Your task to perform on an android device: Clear all items from cart on target.com. Search for "asus rog" on target.com, select the first entry, add it to the cart, then select checkout. Image 0: 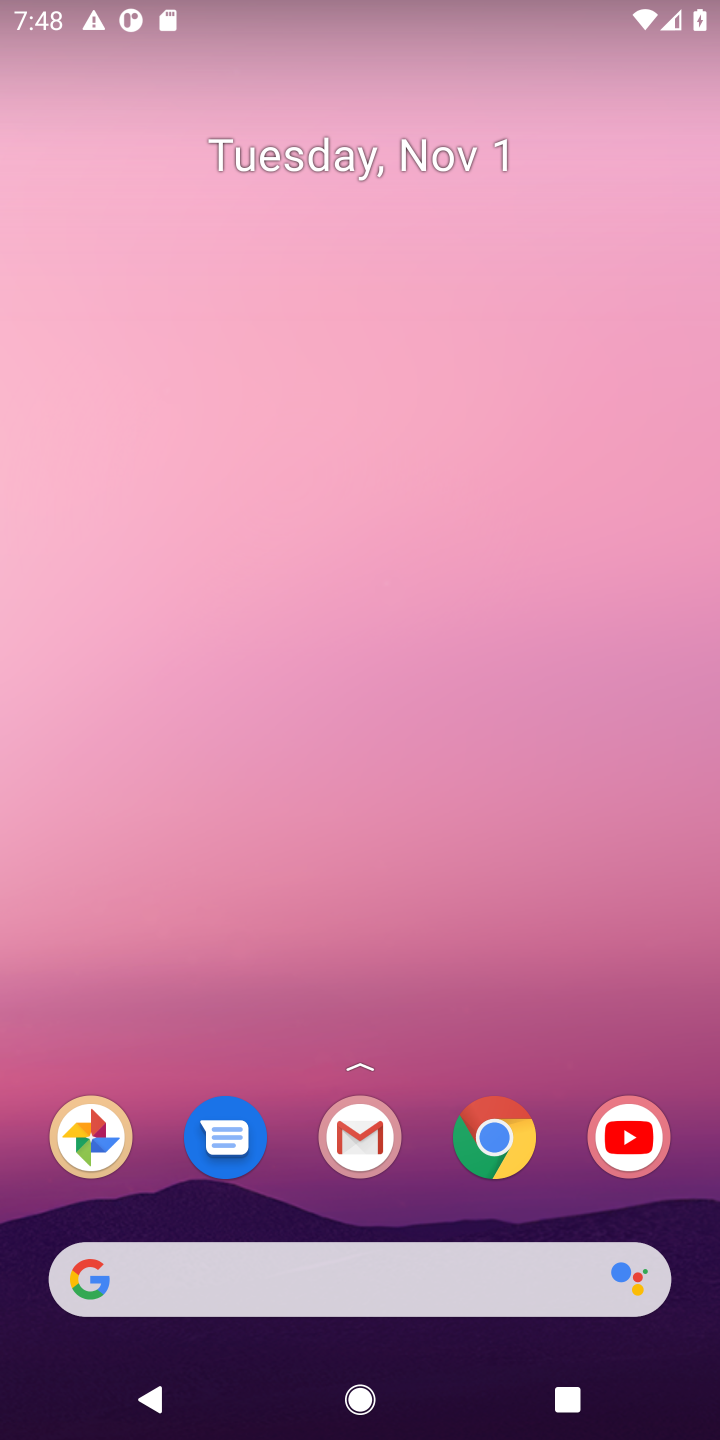
Step 0: click (498, 1153)
Your task to perform on an android device: Clear all items from cart on target.com. Search for "asus rog" on target.com, select the first entry, add it to the cart, then select checkout. Image 1: 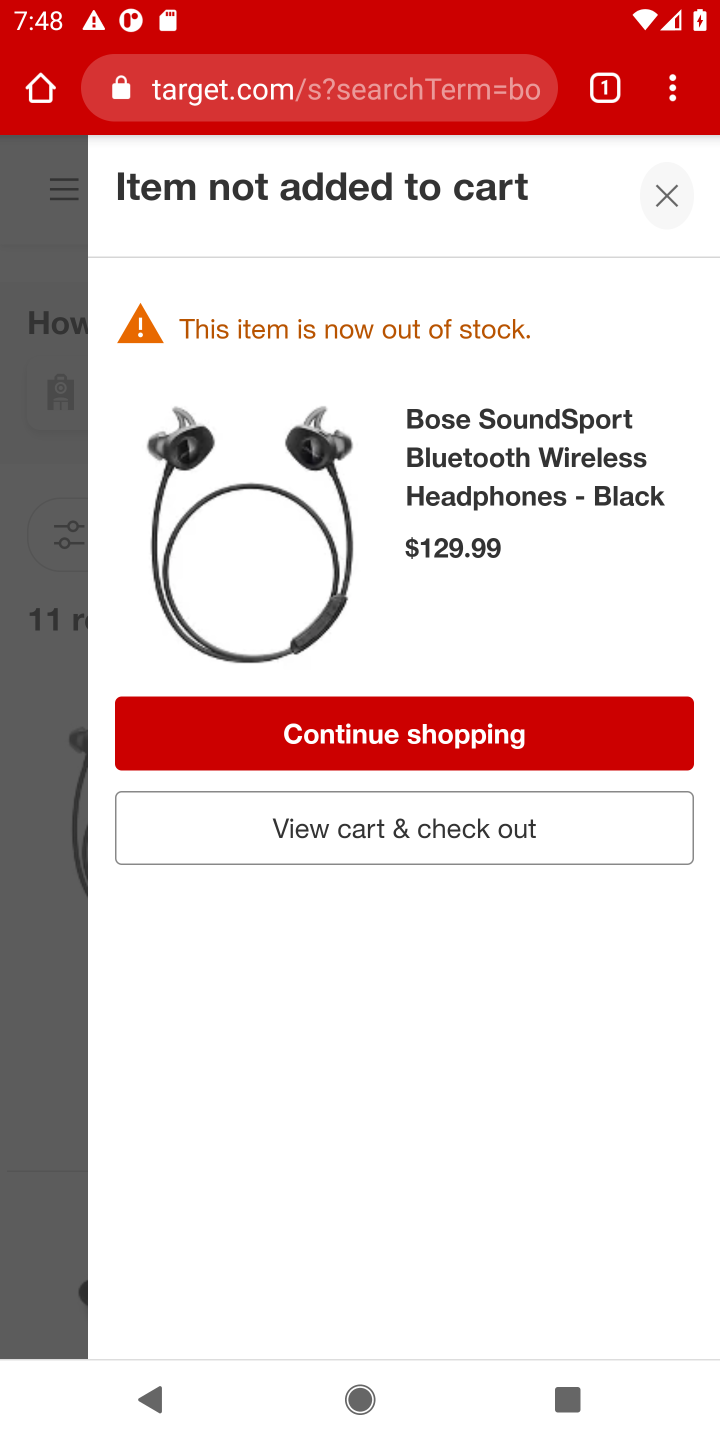
Step 1: click (300, 95)
Your task to perform on an android device: Clear all items from cart on target.com. Search for "asus rog" on target.com, select the first entry, add it to the cart, then select checkout. Image 2: 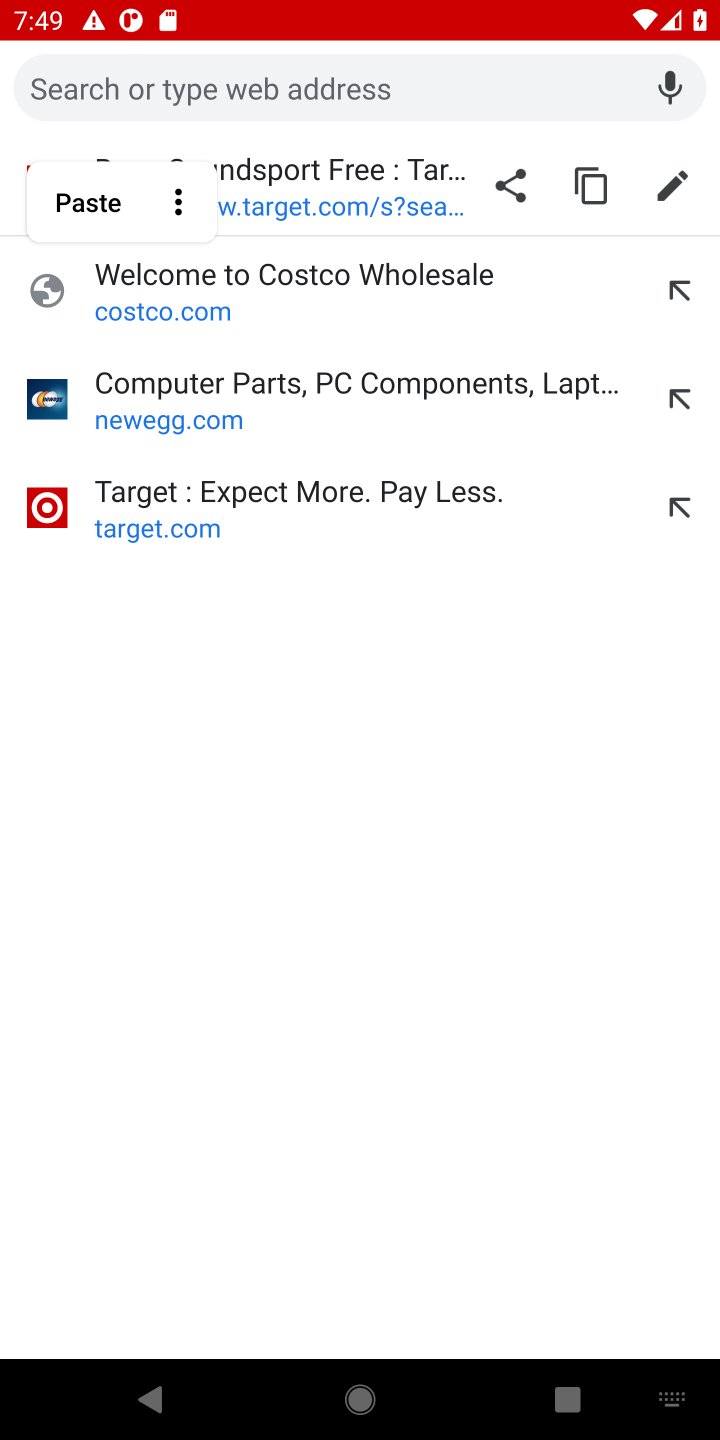
Step 2: type "target.com"
Your task to perform on an android device: Clear all items from cart on target.com. Search for "asus rog" on target.com, select the first entry, add it to the cart, then select checkout. Image 3: 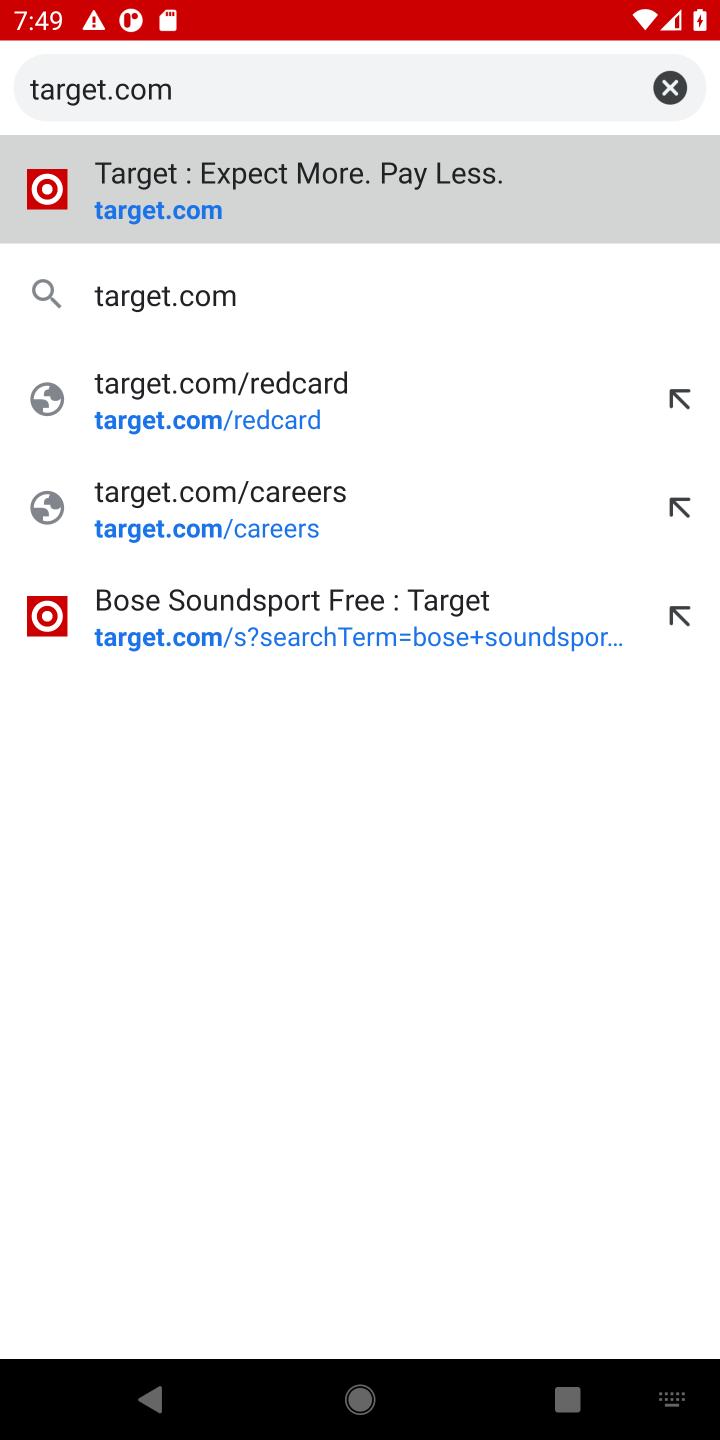
Step 3: click (363, 174)
Your task to perform on an android device: Clear all items from cart on target.com. Search for "asus rog" on target.com, select the first entry, add it to the cart, then select checkout. Image 4: 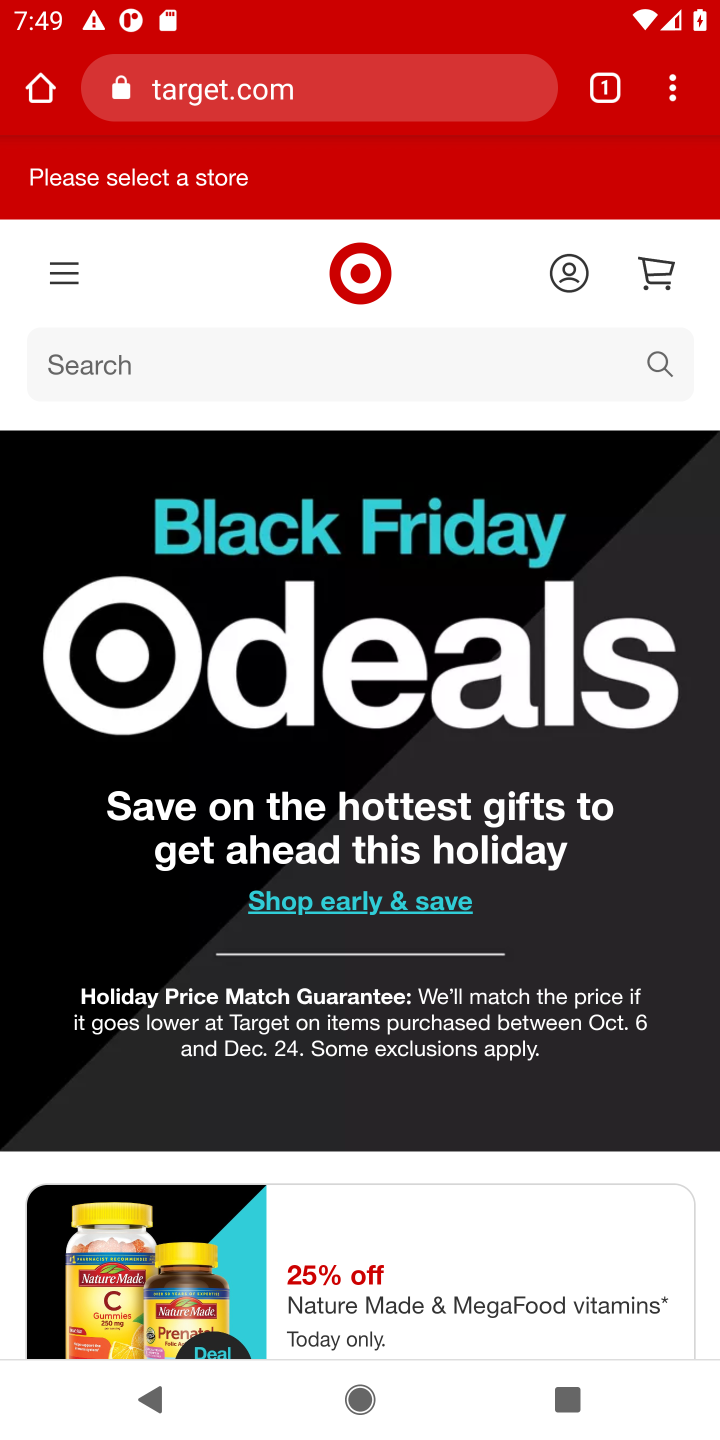
Step 4: click (404, 368)
Your task to perform on an android device: Clear all items from cart on target.com. Search for "asus rog" on target.com, select the first entry, add it to the cart, then select checkout. Image 5: 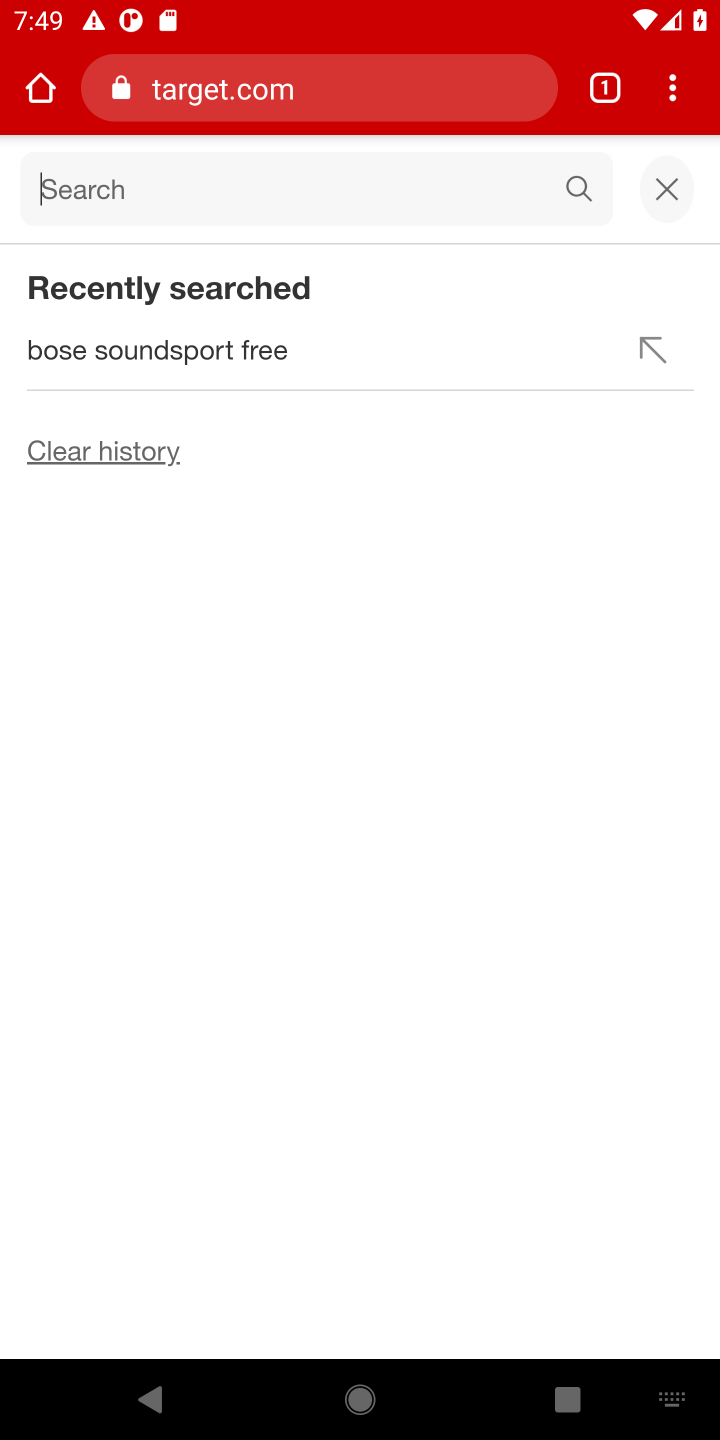
Step 5: type "asus rog"
Your task to perform on an android device: Clear all items from cart on target.com. Search for "asus rog" on target.com, select the first entry, add it to the cart, then select checkout. Image 6: 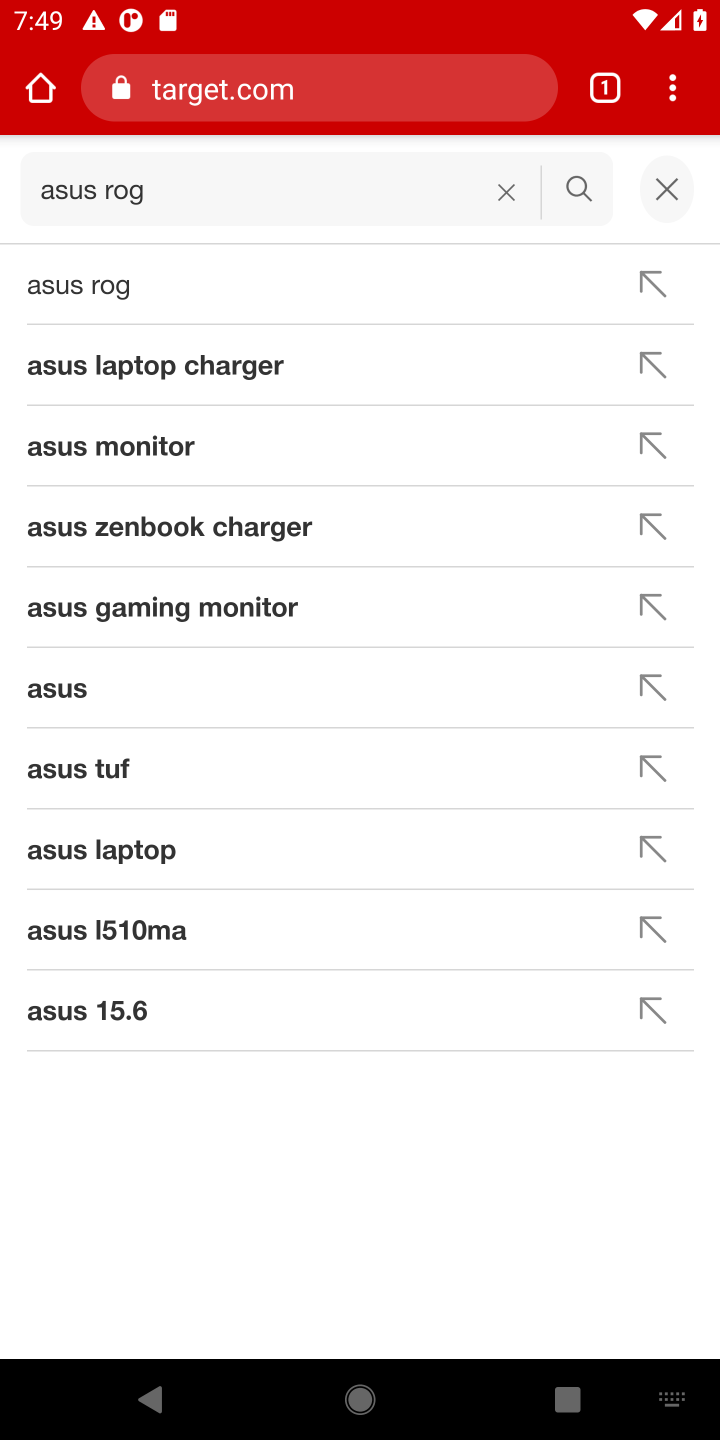
Step 6: press enter
Your task to perform on an android device: Clear all items from cart on target.com. Search for "asus rog" on target.com, select the first entry, add it to the cart, then select checkout. Image 7: 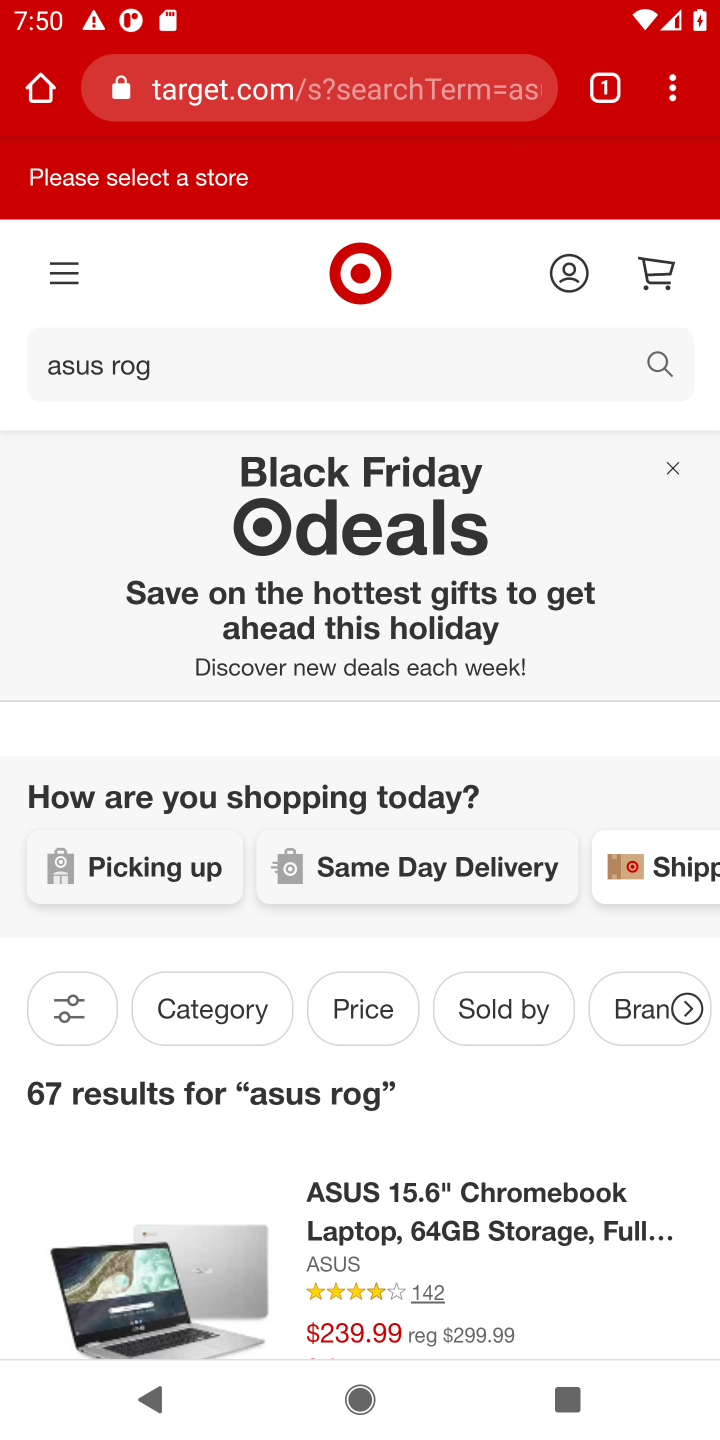
Step 7: click (176, 1291)
Your task to perform on an android device: Clear all items from cart on target.com. Search for "asus rog" on target.com, select the first entry, add it to the cart, then select checkout. Image 8: 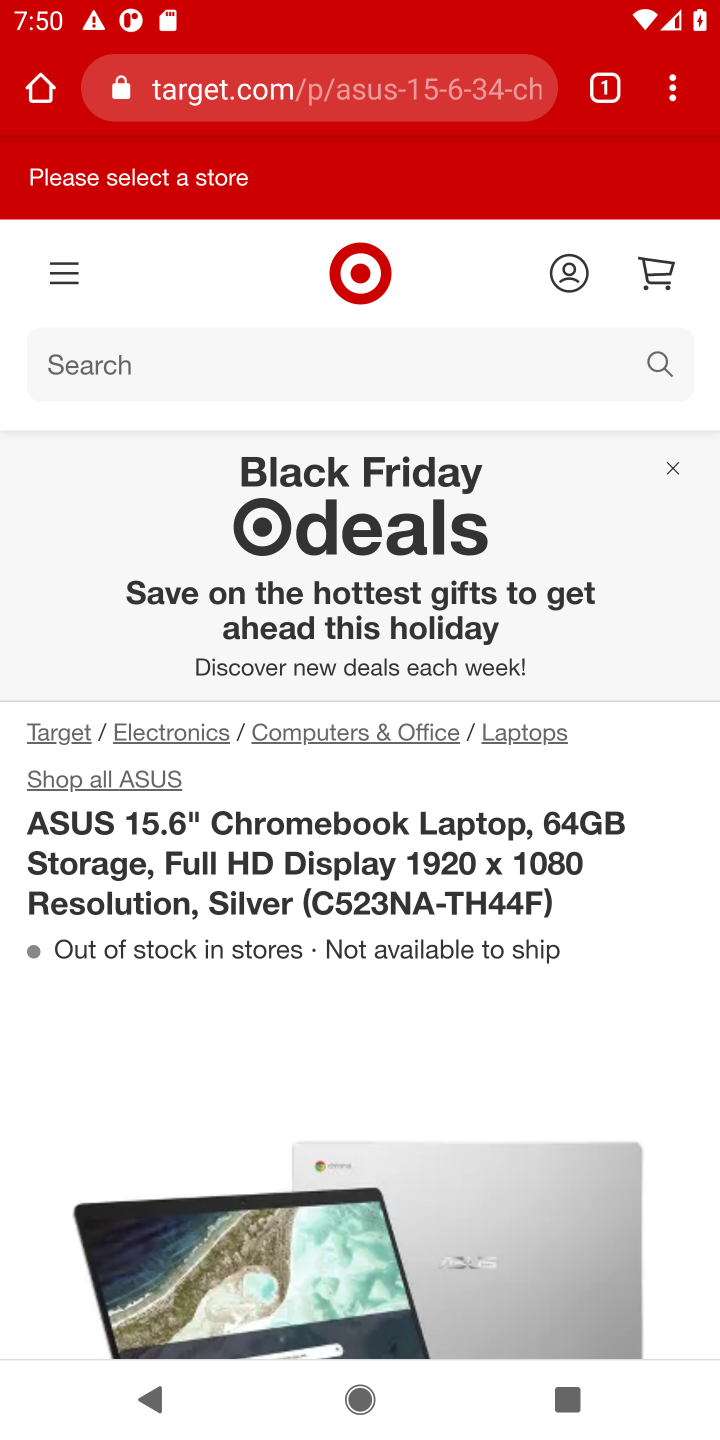
Step 8: drag from (503, 700) to (470, 108)
Your task to perform on an android device: Clear all items from cart on target.com. Search for "asus rog" on target.com, select the first entry, add it to the cart, then select checkout. Image 9: 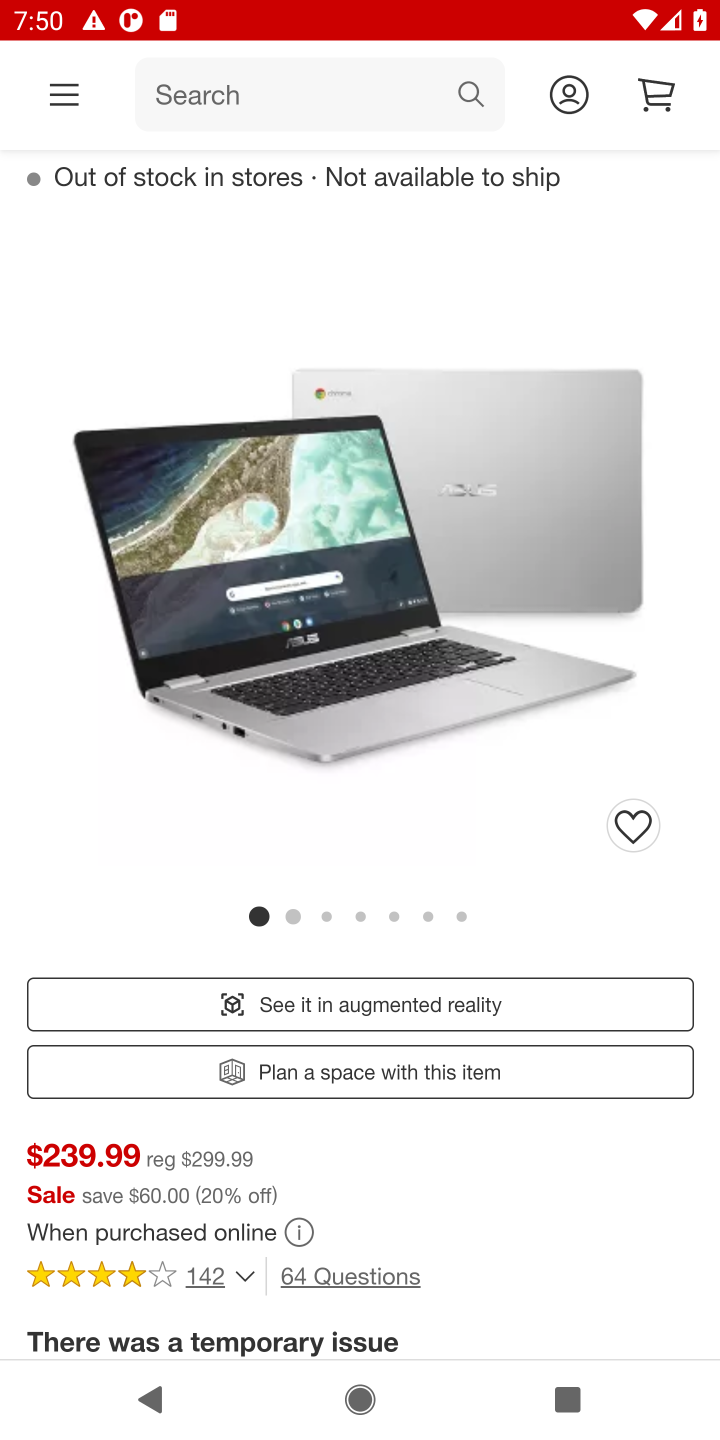
Step 9: drag from (545, 1232) to (448, 411)
Your task to perform on an android device: Clear all items from cart on target.com. Search for "asus rog" on target.com, select the first entry, add it to the cart, then select checkout. Image 10: 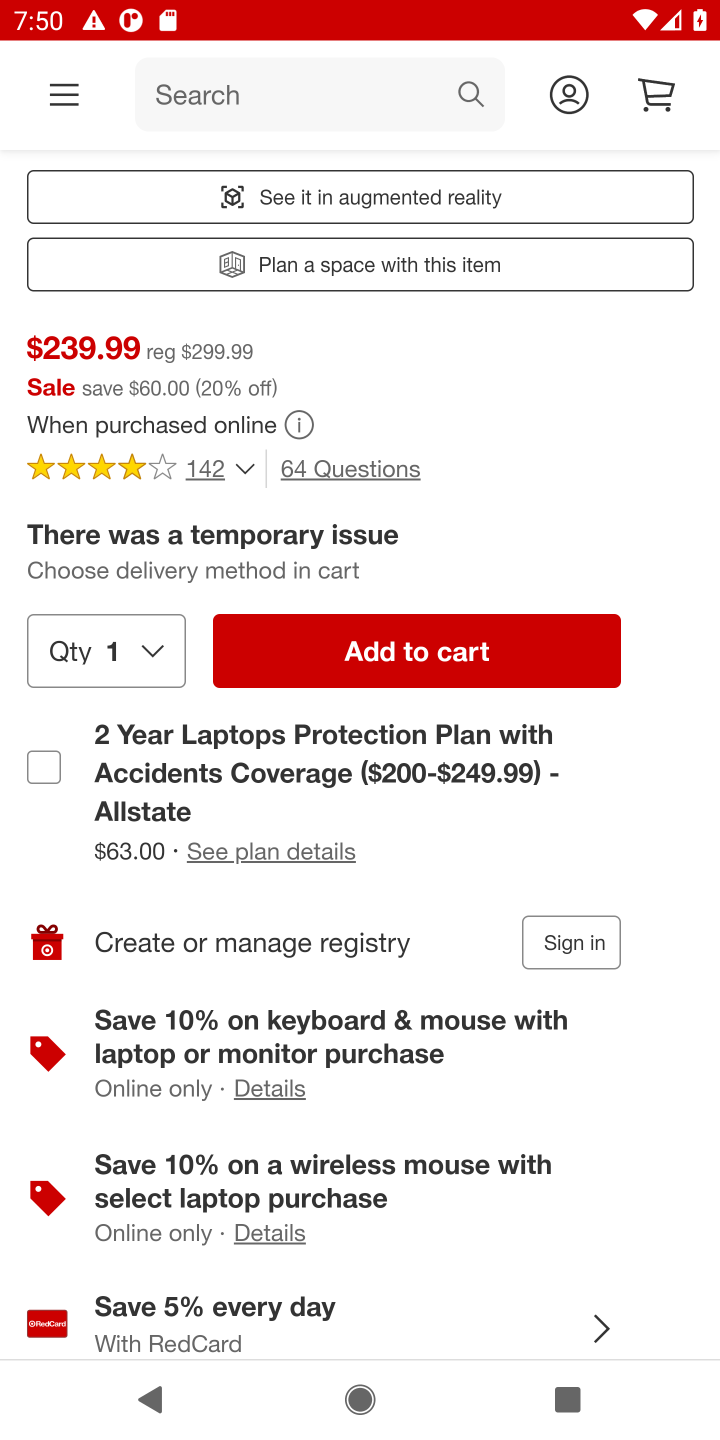
Step 10: click (439, 648)
Your task to perform on an android device: Clear all items from cart on target.com. Search for "asus rog" on target.com, select the first entry, add it to the cart, then select checkout. Image 11: 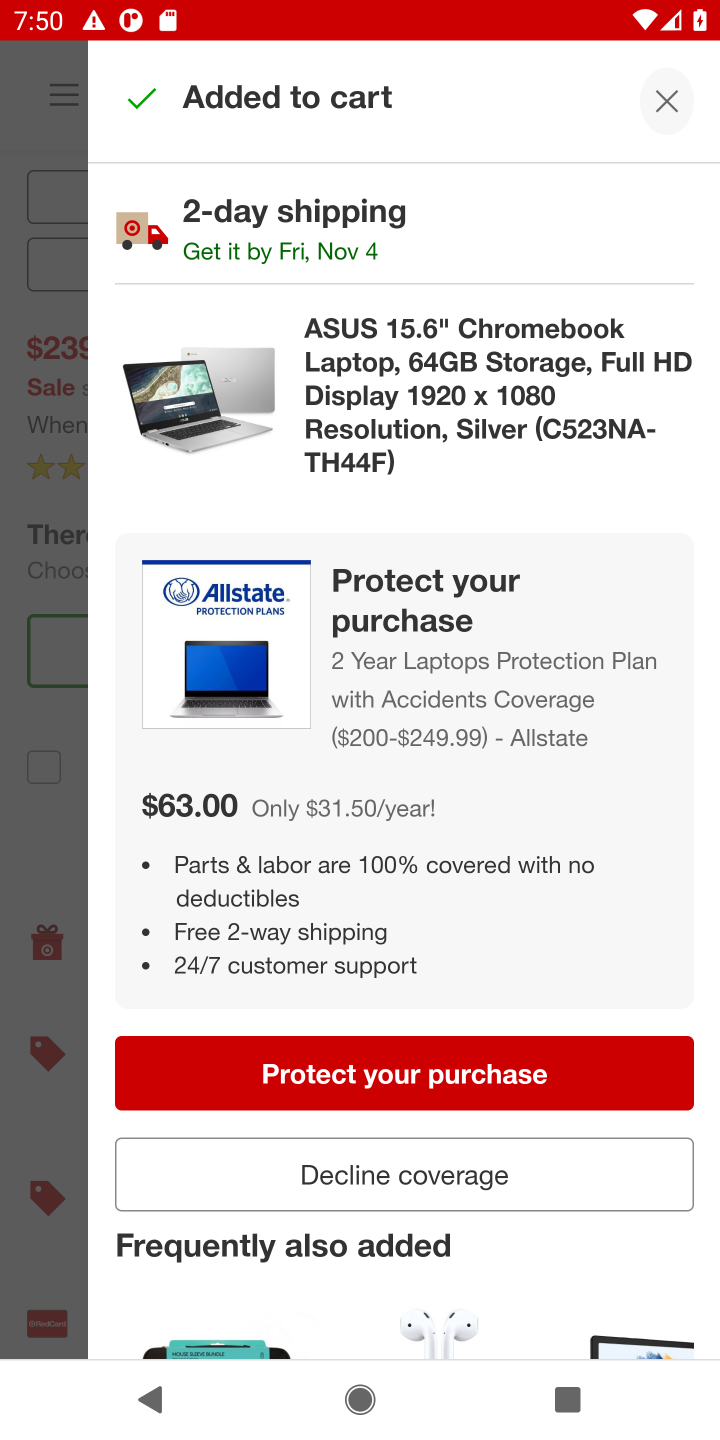
Step 11: click (549, 1168)
Your task to perform on an android device: Clear all items from cart on target.com. Search for "asus rog" on target.com, select the first entry, add it to the cart, then select checkout. Image 12: 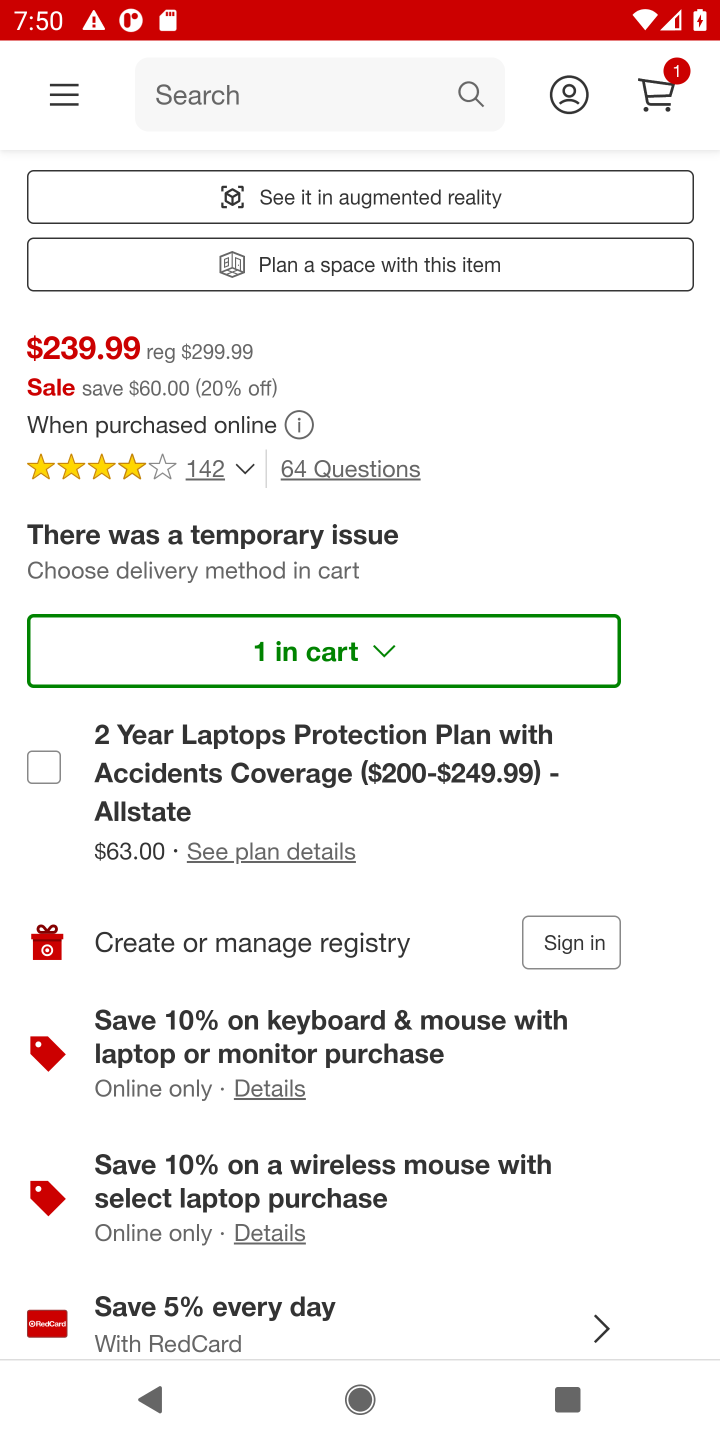
Step 12: click (671, 83)
Your task to perform on an android device: Clear all items from cart on target.com. Search for "asus rog" on target.com, select the first entry, add it to the cart, then select checkout. Image 13: 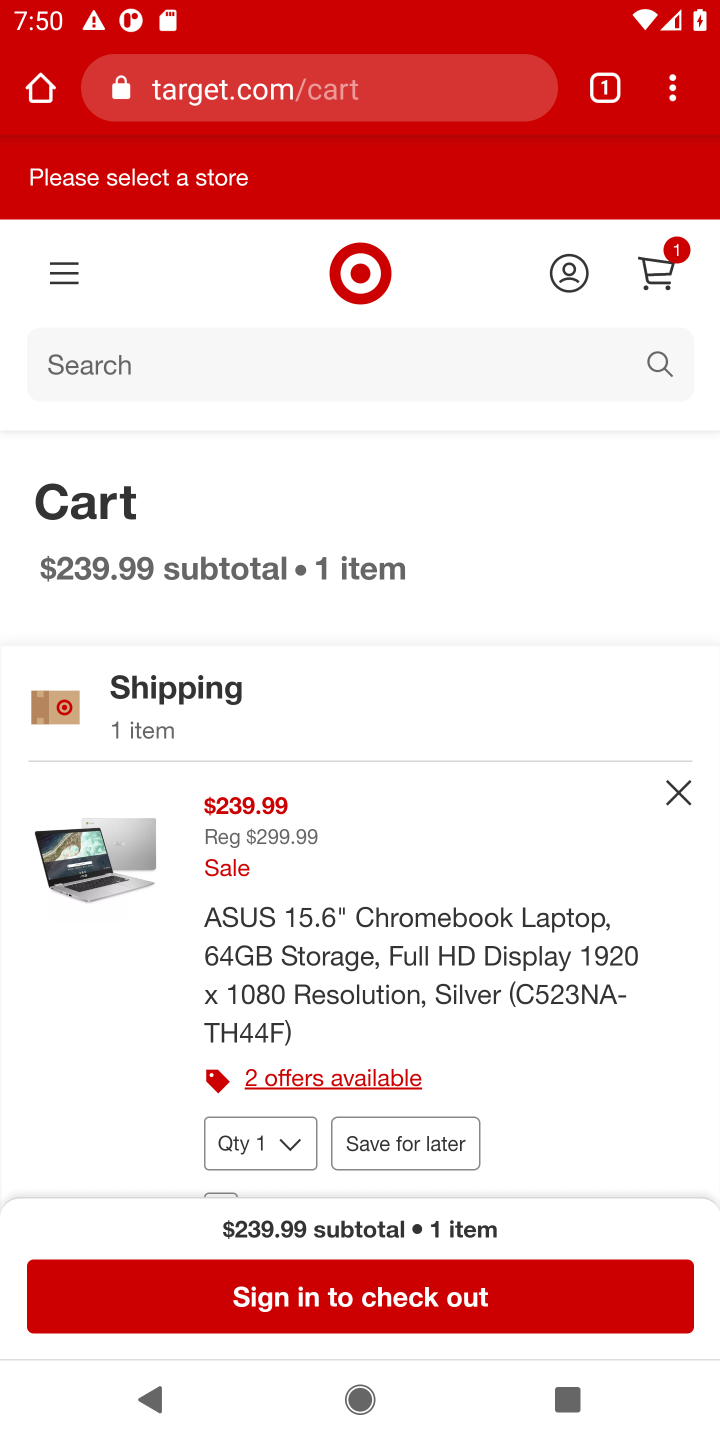
Step 13: click (471, 1300)
Your task to perform on an android device: Clear all items from cart on target.com. Search for "asus rog" on target.com, select the first entry, add it to the cart, then select checkout. Image 14: 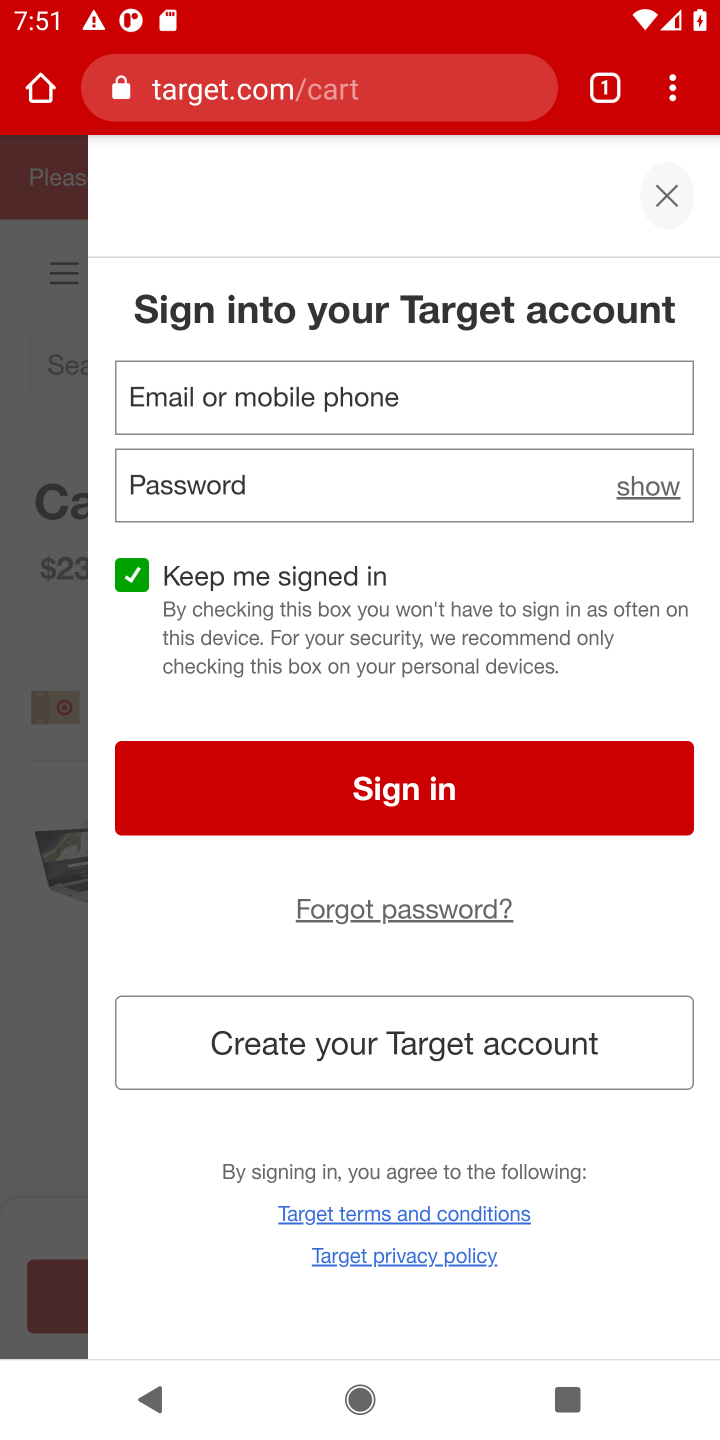
Step 14: task complete